Your task to perform on an android device: turn on showing notifications on the lock screen Image 0: 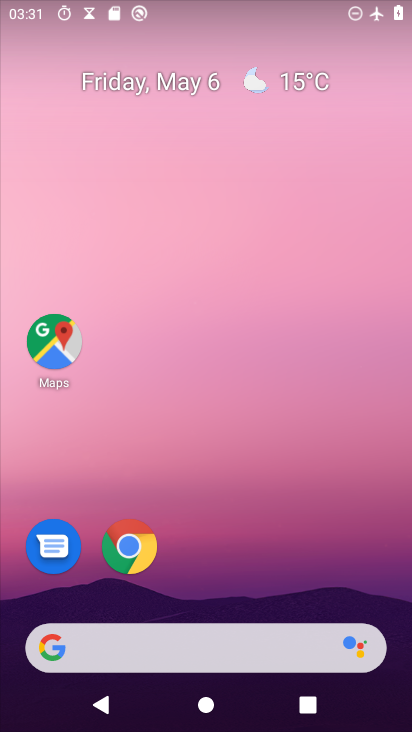
Step 0: drag from (251, 577) to (300, 191)
Your task to perform on an android device: turn on showing notifications on the lock screen Image 1: 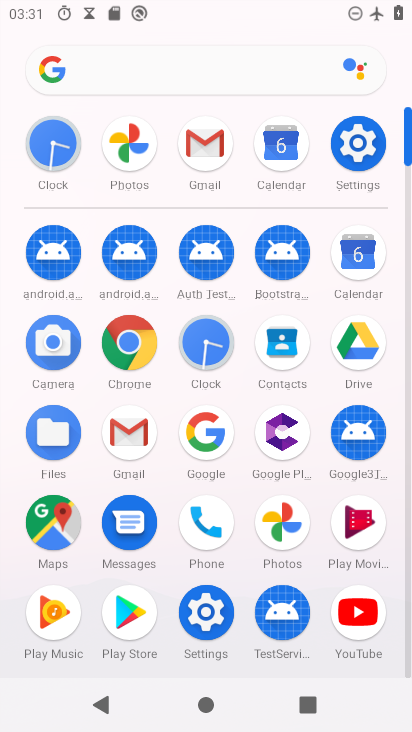
Step 1: click (349, 140)
Your task to perform on an android device: turn on showing notifications on the lock screen Image 2: 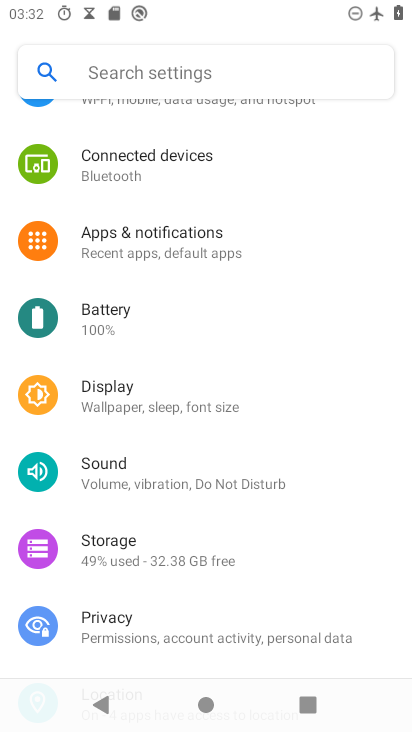
Step 2: click (128, 255)
Your task to perform on an android device: turn on showing notifications on the lock screen Image 3: 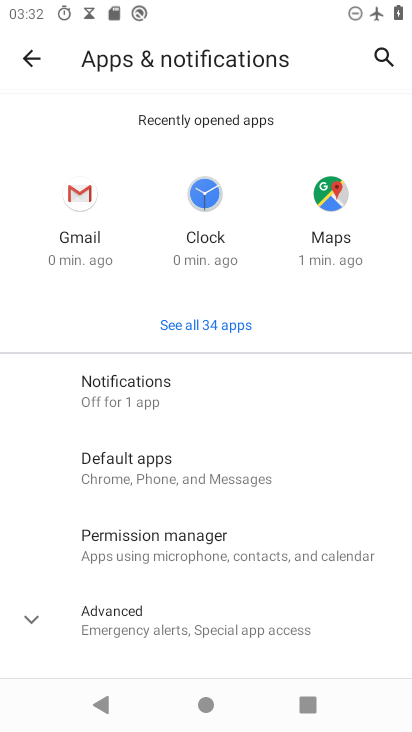
Step 3: click (162, 397)
Your task to perform on an android device: turn on showing notifications on the lock screen Image 4: 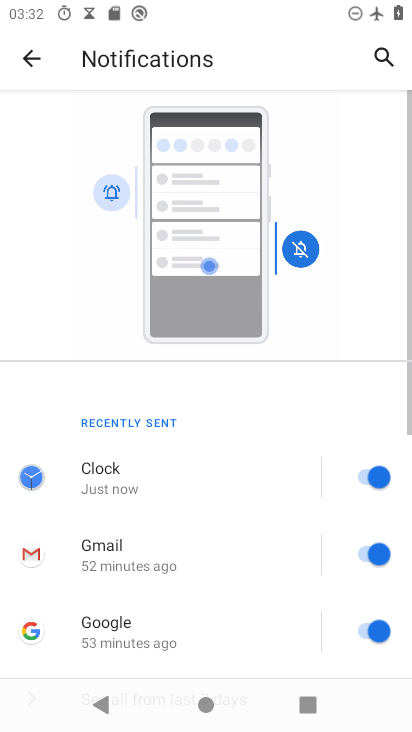
Step 4: drag from (186, 547) to (228, 175)
Your task to perform on an android device: turn on showing notifications on the lock screen Image 5: 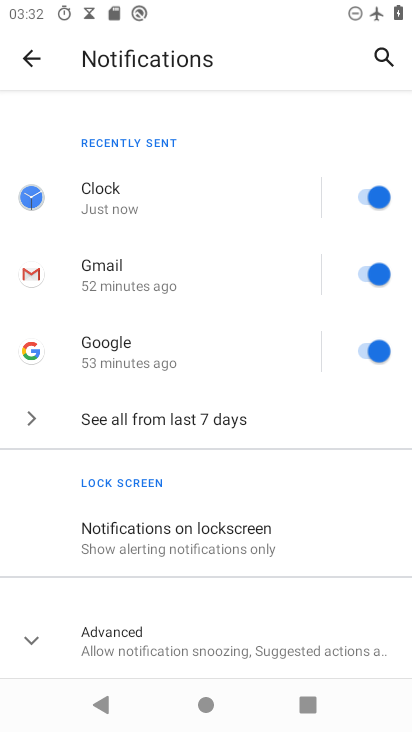
Step 5: click (225, 534)
Your task to perform on an android device: turn on showing notifications on the lock screen Image 6: 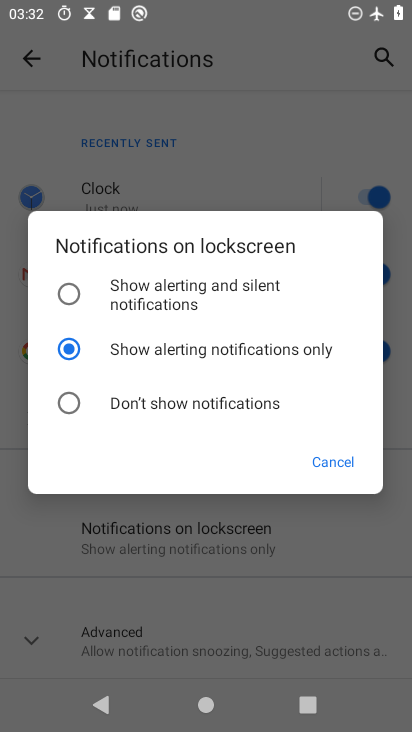
Step 6: click (165, 303)
Your task to perform on an android device: turn on showing notifications on the lock screen Image 7: 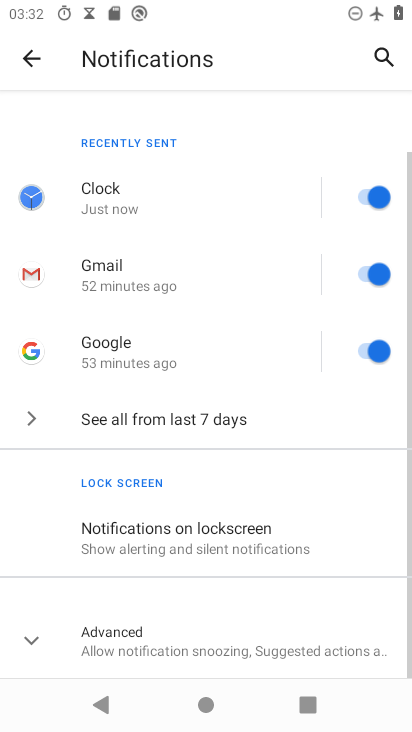
Step 7: task complete